Your task to perform on an android device: Open maps Image 0: 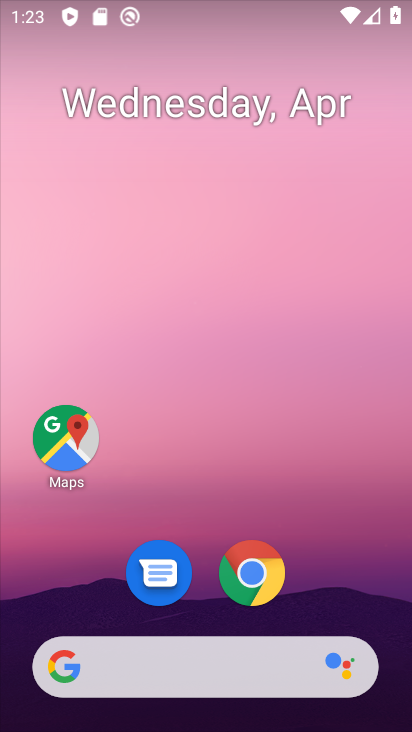
Step 0: drag from (206, 675) to (289, 8)
Your task to perform on an android device: Open maps Image 1: 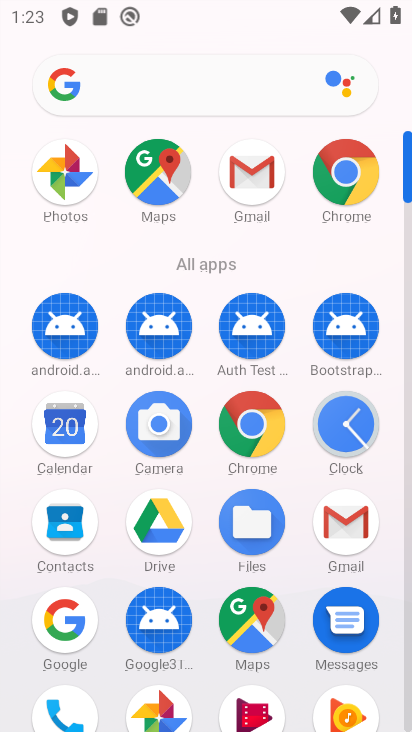
Step 1: click (242, 628)
Your task to perform on an android device: Open maps Image 2: 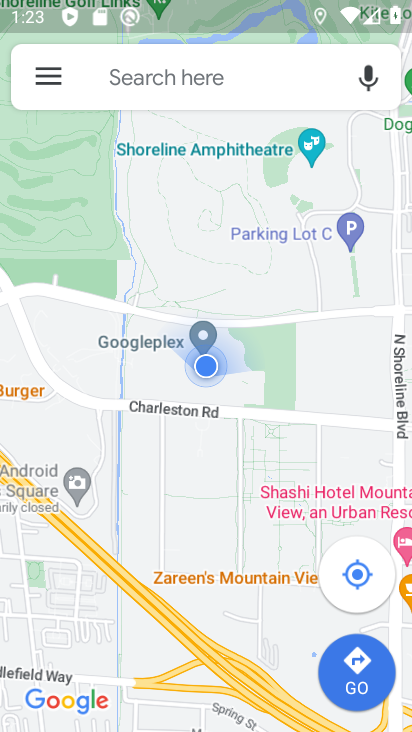
Step 2: task complete